Your task to perform on an android device: manage bookmarks in the chrome app Image 0: 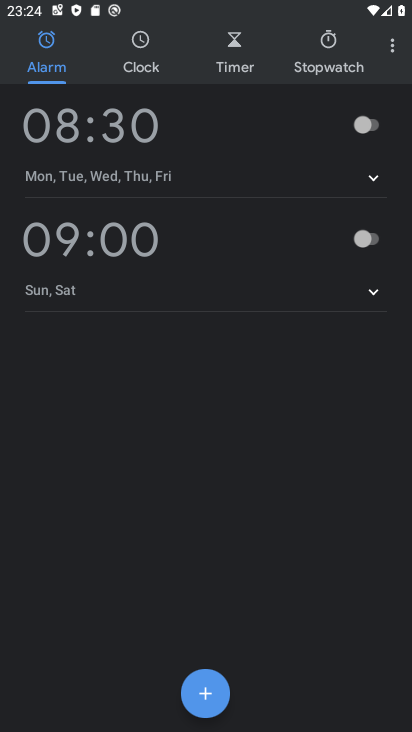
Step 0: press home button
Your task to perform on an android device: manage bookmarks in the chrome app Image 1: 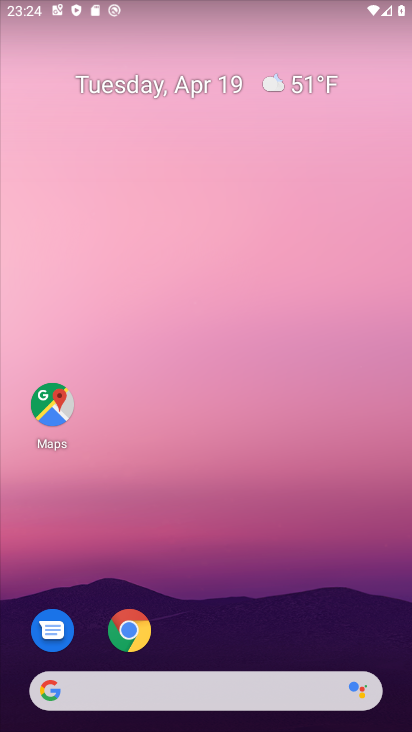
Step 1: click (130, 630)
Your task to perform on an android device: manage bookmarks in the chrome app Image 2: 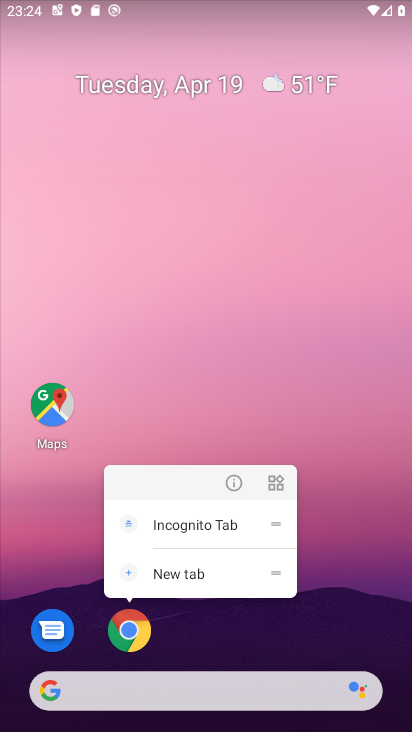
Step 2: click (130, 630)
Your task to perform on an android device: manage bookmarks in the chrome app Image 3: 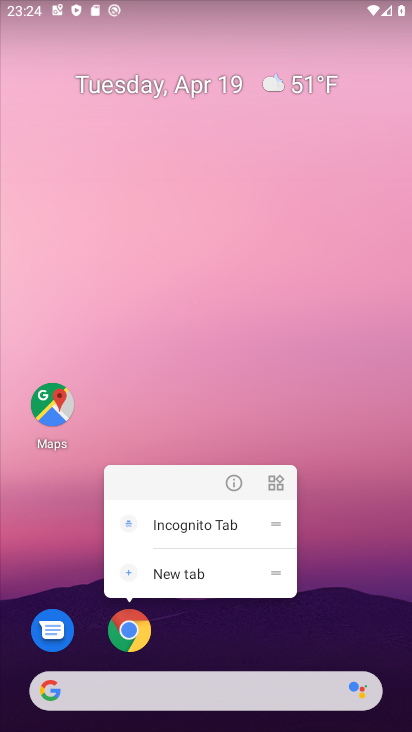
Step 3: click (121, 636)
Your task to perform on an android device: manage bookmarks in the chrome app Image 4: 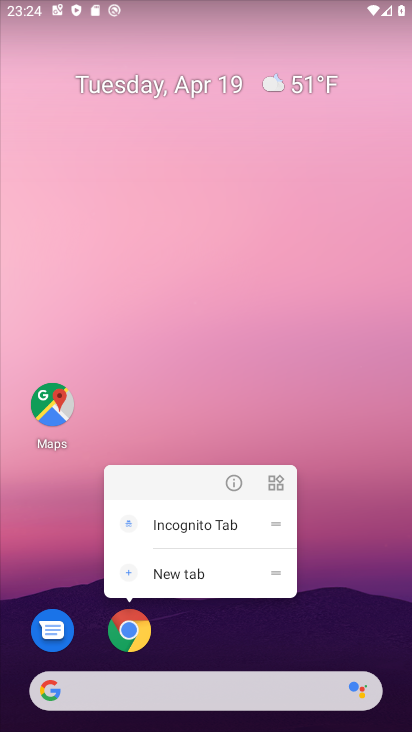
Step 4: drag from (346, 629) to (332, 383)
Your task to perform on an android device: manage bookmarks in the chrome app Image 5: 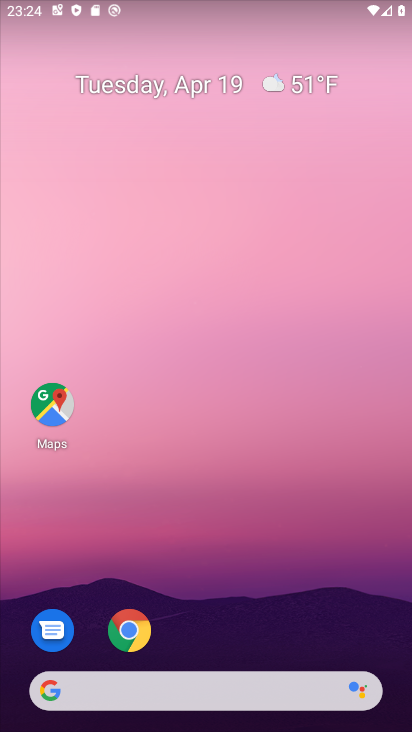
Step 5: drag from (299, 646) to (282, 53)
Your task to perform on an android device: manage bookmarks in the chrome app Image 6: 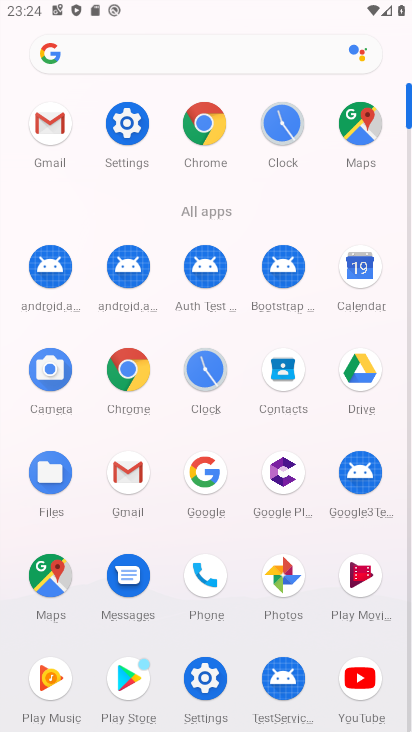
Step 6: click (118, 383)
Your task to perform on an android device: manage bookmarks in the chrome app Image 7: 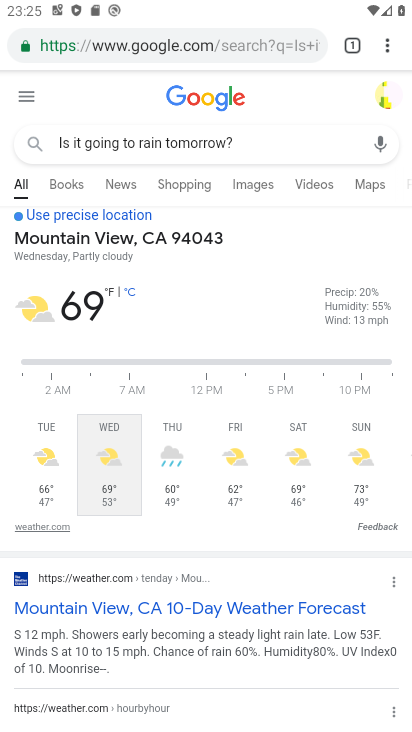
Step 7: click (387, 49)
Your task to perform on an android device: manage bookmarks in the chrome app Image 8: 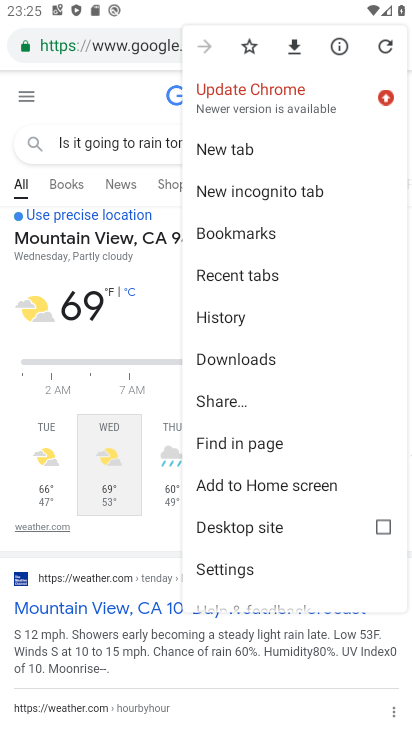
Step 8: click (234, 242)
Your task to perform on an android device: manage bookmarks in the chrome app Image 9: 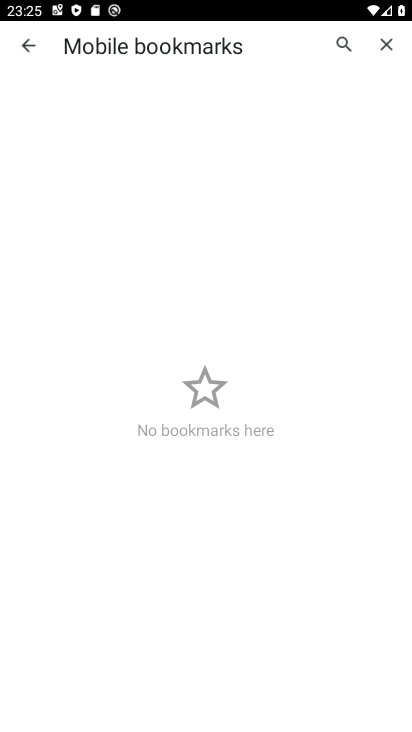
Step 9: task complete